Your task to perform on an android device: Go to internet settings Image 0: 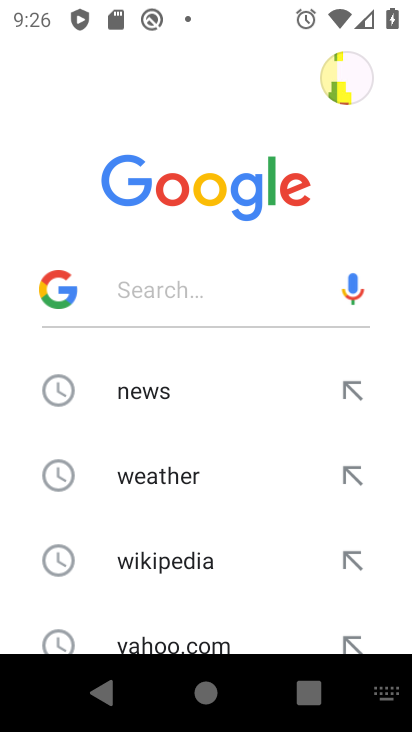
Step 0: press home button
Your task to perform on an android device: Go to internet settings Image 1: 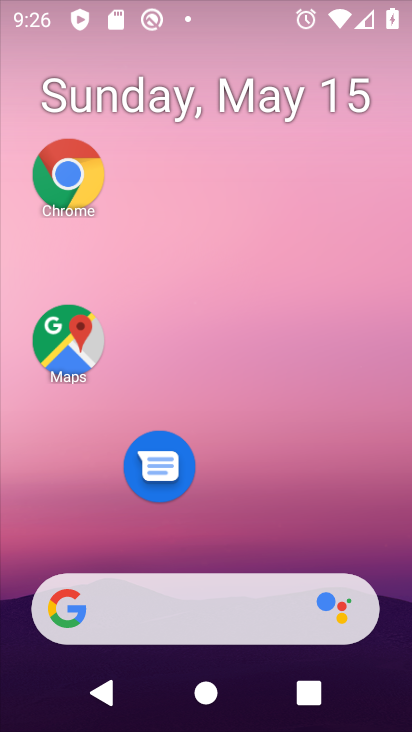
Step 1: drag from (329, 453) to (289, 49)
Your task to perform on an android device: Go to internet settings Image 2: 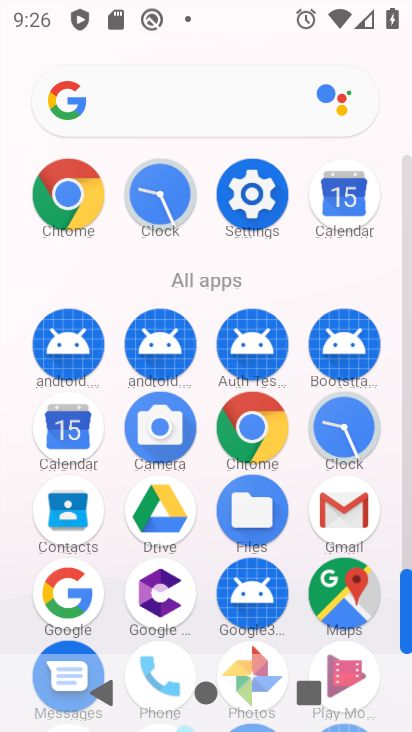
Step 2: click (249, 194)
Your task to perform on an android device: Go to internet settings Image 3: 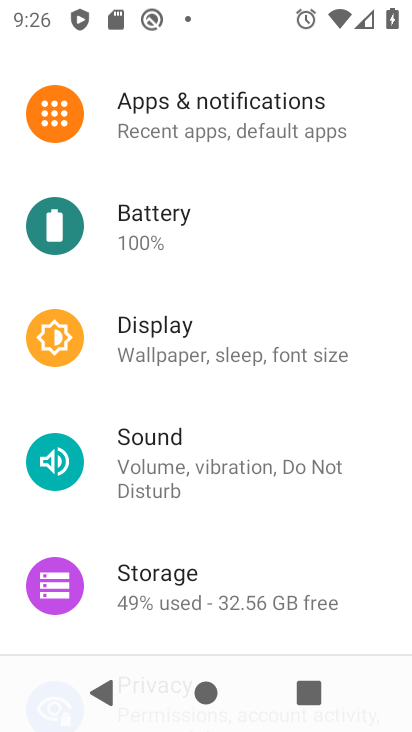
Step 3: drag from (249, 184) to (277, 655)
Your task to perform on an android device: Go to internet settings Image 4: 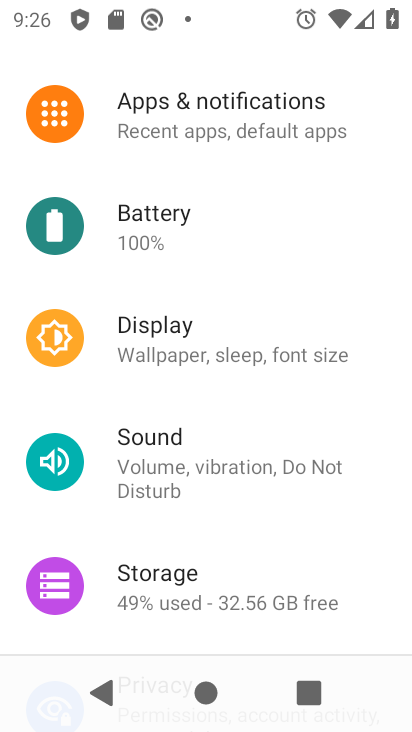
Step 4: drag from (244, 240) to (265, 596)
Your task to perform on an android device: Go to internet settings Image 5: 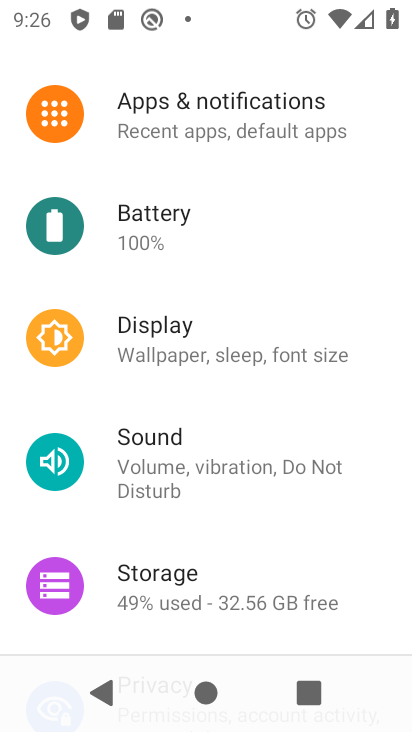
Step 5: drag from (207, 159) to (185, 532)
Your task to perform on an android device: Go to internet settings Image 6: 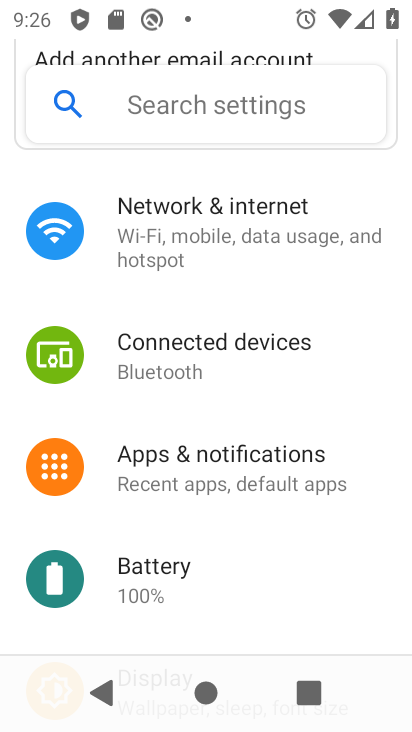
Step 6: click (291, 207)
Your task to perform on an android device: Go to internet settings Image 7: 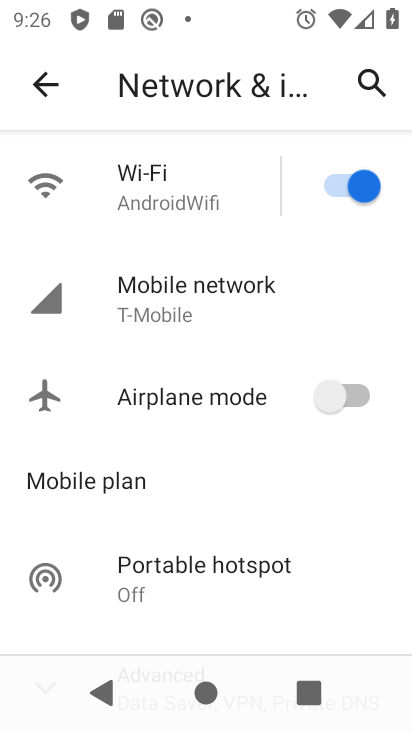
Step 7: click (199, 177)
Your task to perform on an android device: Go to internet settings Image 8: 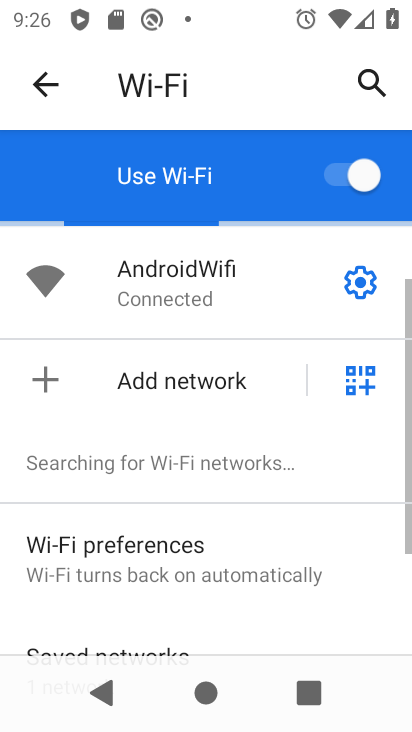
Step 8: click (358, 277)
Your task to perform on an android device: Go to internet settings Image 9: 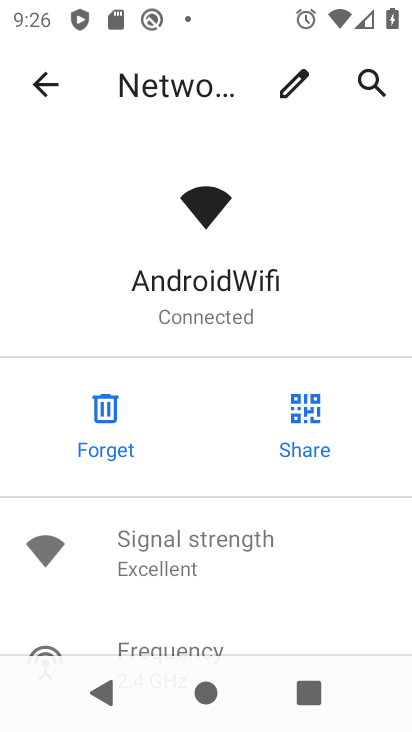
Step 9: click (55, 82)
Your task to perform on an android device: Go to internet settings Image 10: 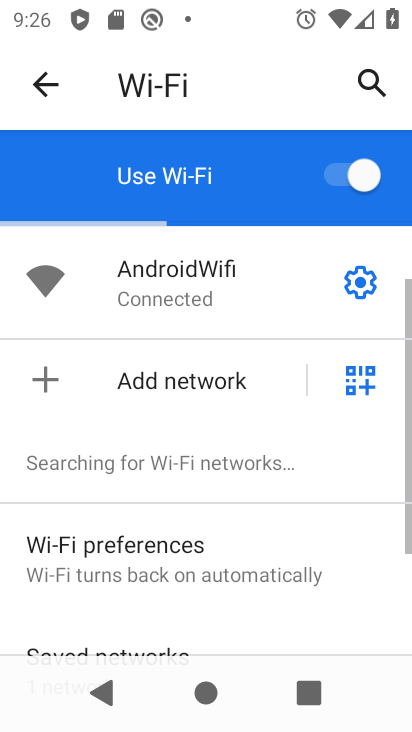
Step 10: task complete